Your task to perform on an android device: open a bookmark in the chrome app Image 0: 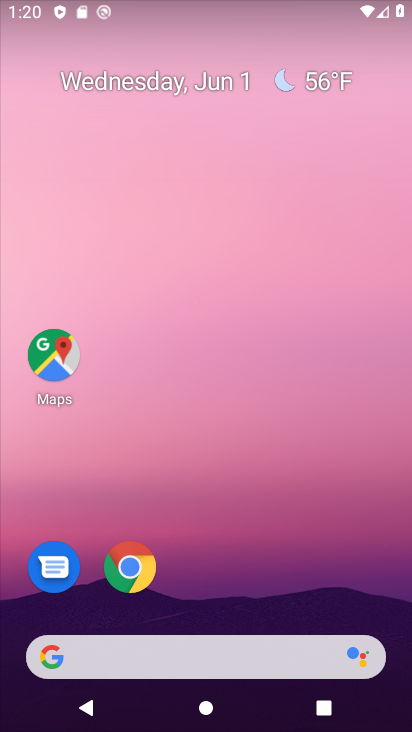
Step 0: click (137, 569)
Your task to perform on an android device: open a bookmark in the chrome app Image 1: 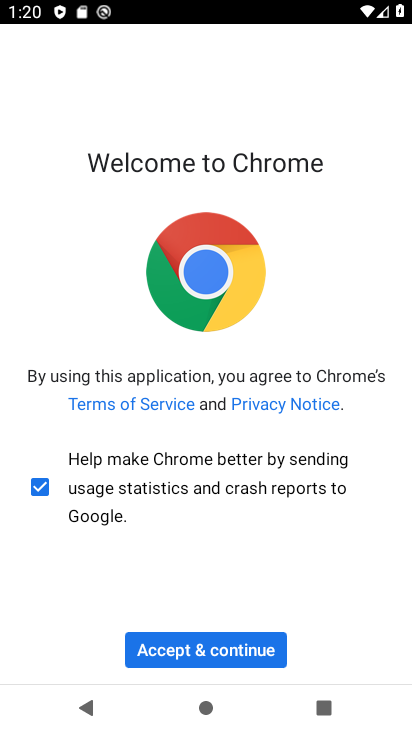
Step 1: click (243, 643)
Your task to perform on an android device: open a bookmark in the chrome app Image 2: 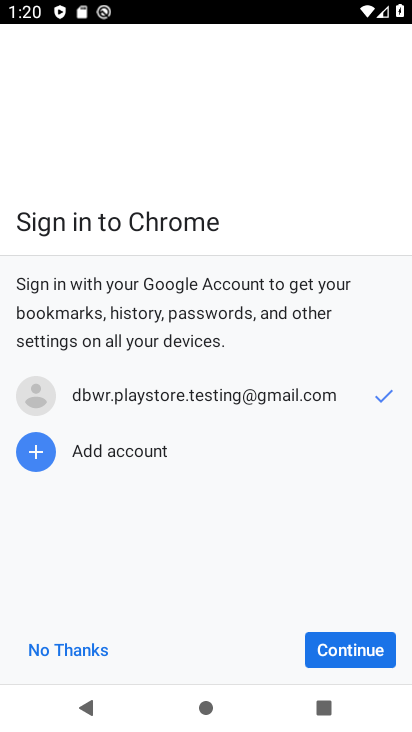
Step 2: click (343, 651)
Your task to perform on an android device: open a bookmark in the chrome app Image 3: 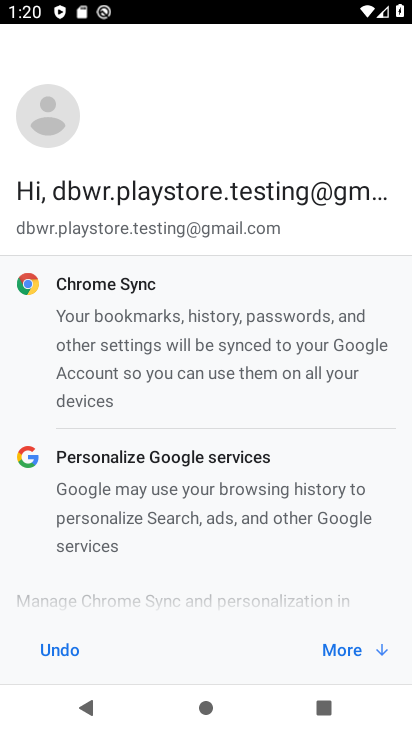
Step 3: click (341, 651)
Your task to perform on an android device: open a bookmark in the chrome app Image 4: 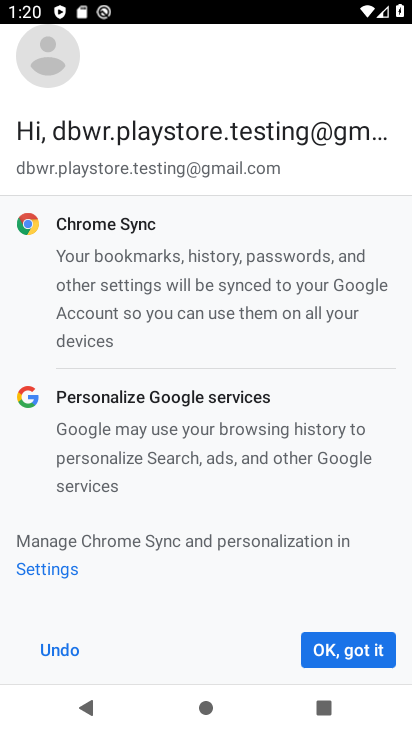
Step 4: click (341, 651)
Your task to perform on an android device: open a bookmark in the chrome app Image 5: 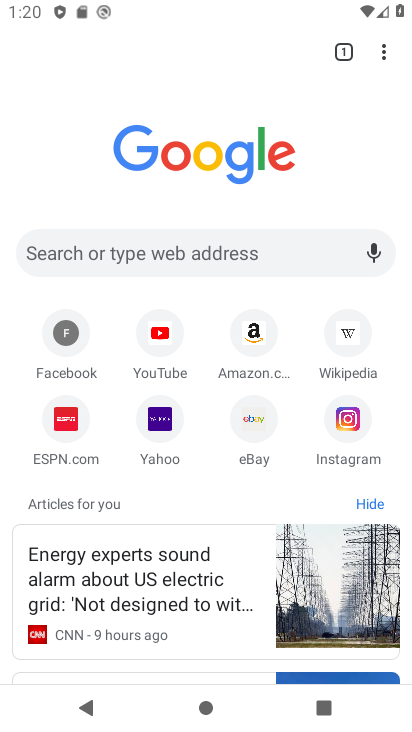
Step 5: task complete